Your task to perform on an android device: Open settings Image 0: 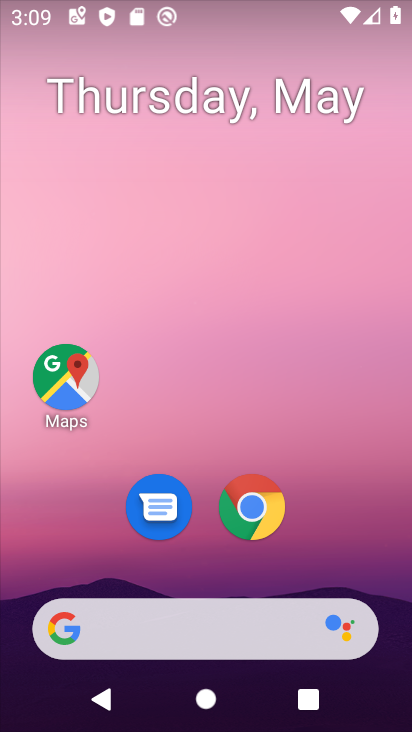
Step 0: drag from (316, 550) to (333, 66)
Your task to perform on an android device: Open settings Image 1: 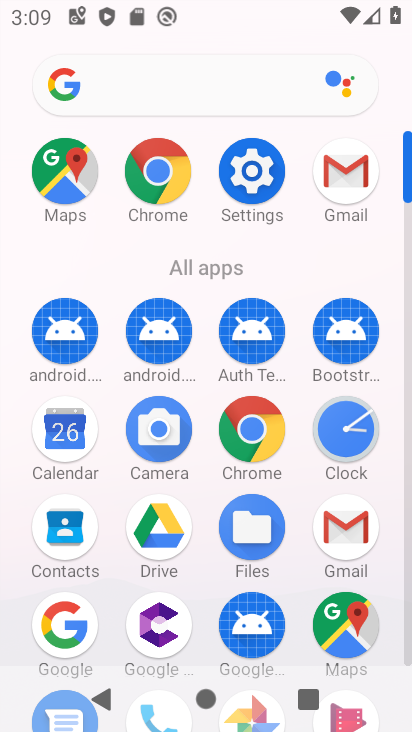
Step 1: click (253, 172)
Your task to perform on an android device: Open settings Image 2: 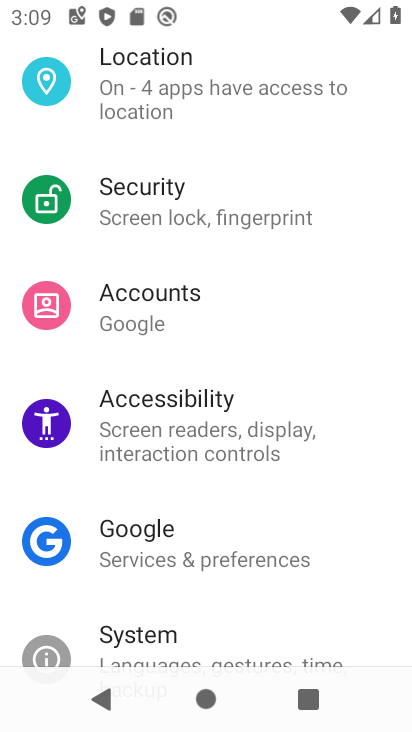
Step 2: task complete